Your task to perform on an android device: turn off location history Image 0: 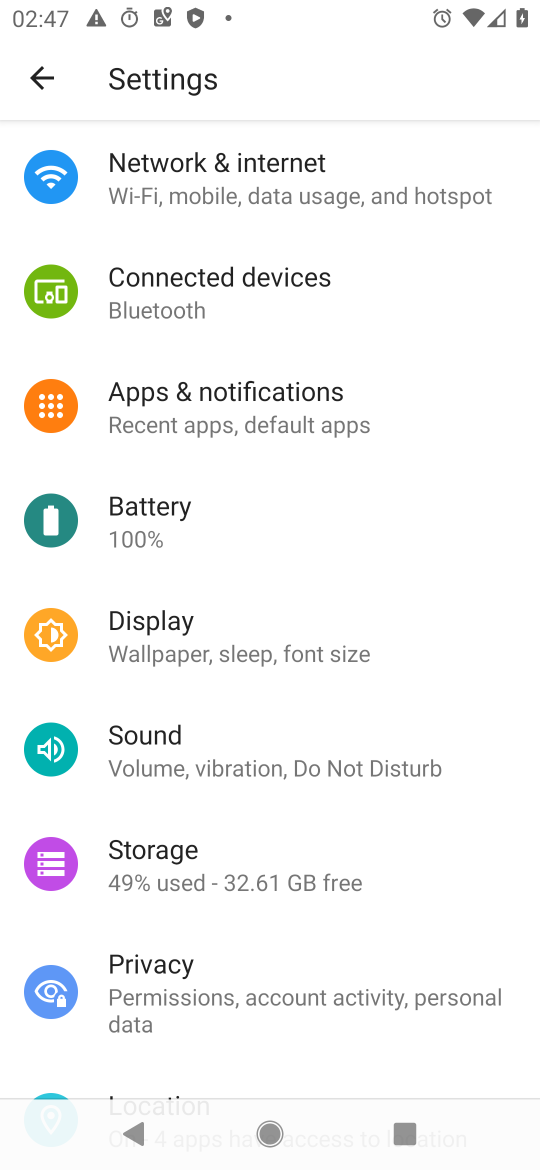
Step 0: drag from (236, 969) to (272, 460)
Your task to perform on an android device: turn off location history Image 1: 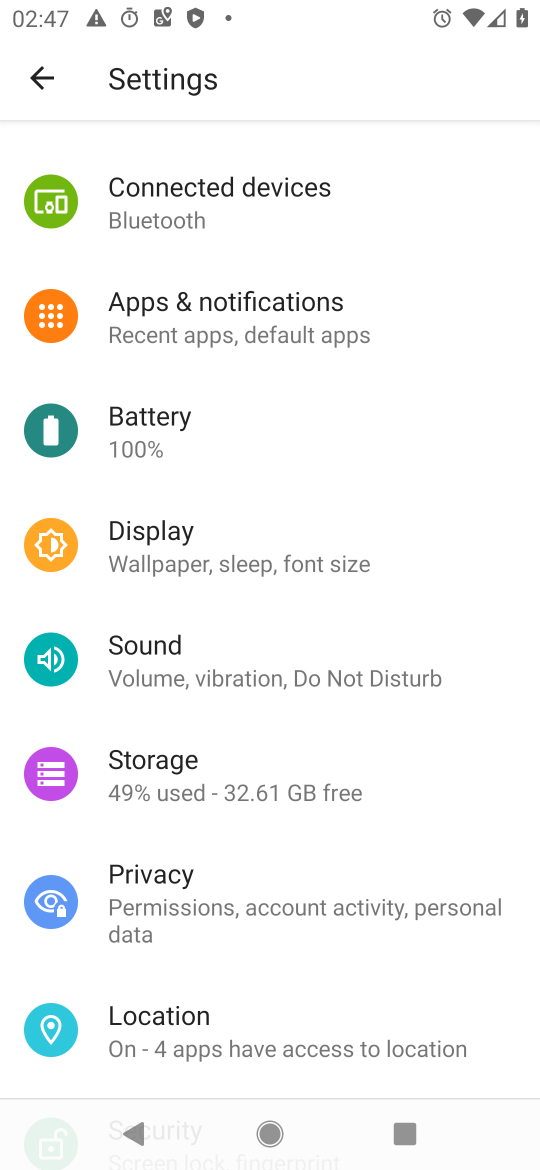
Step 1: click (222, 1030)
Your task to perform on an android device: turn off location history Image 2: 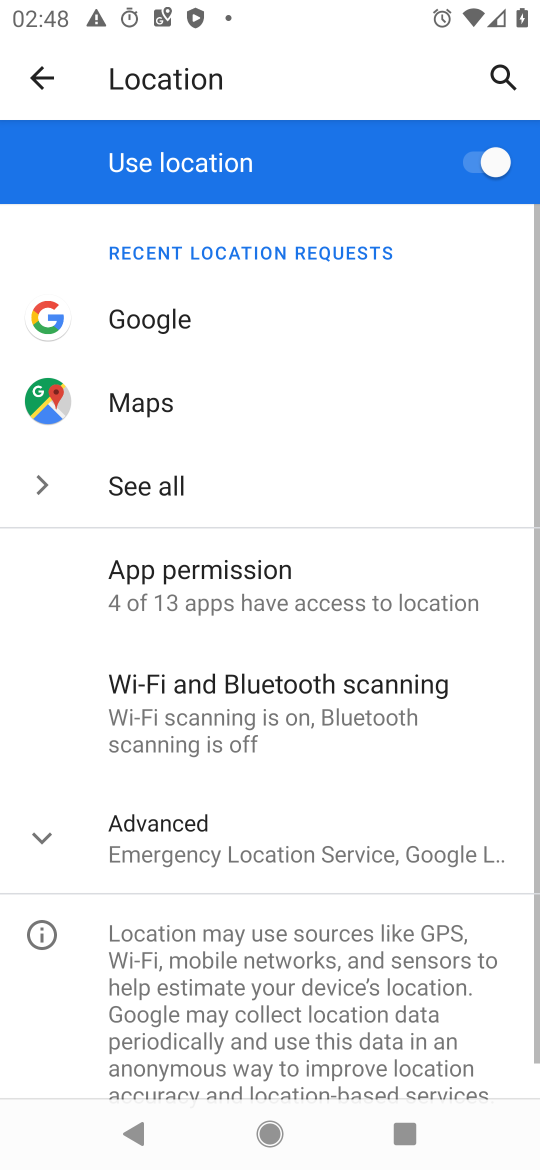
Step 2: click (174, 832)
Your task to perform on an android device: turn off location history Image 3: 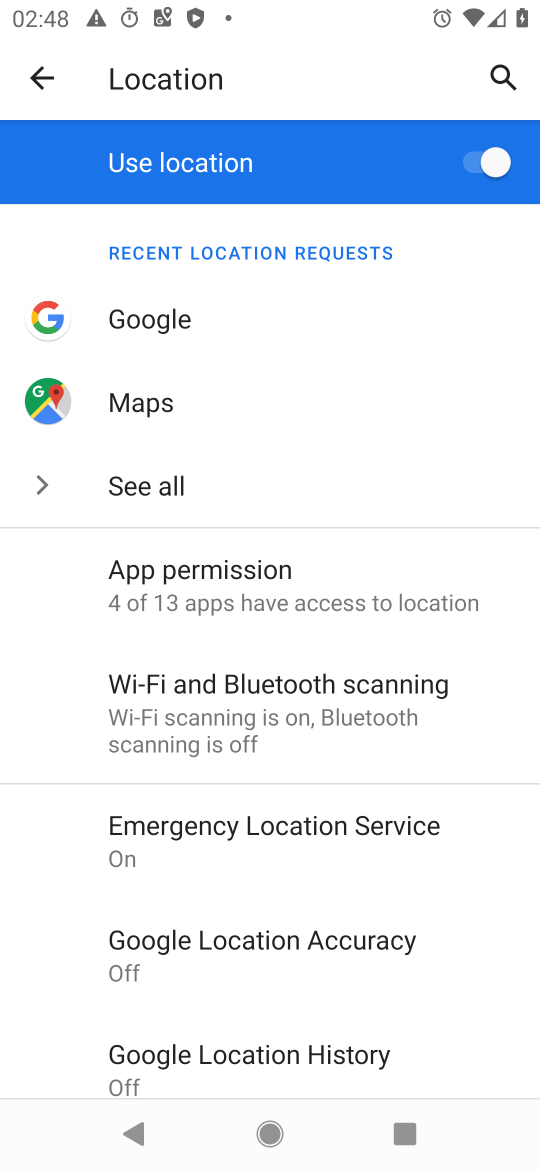
Step 3: task complete